Your task to perform on an android device: Open Wikipedia Image 0: 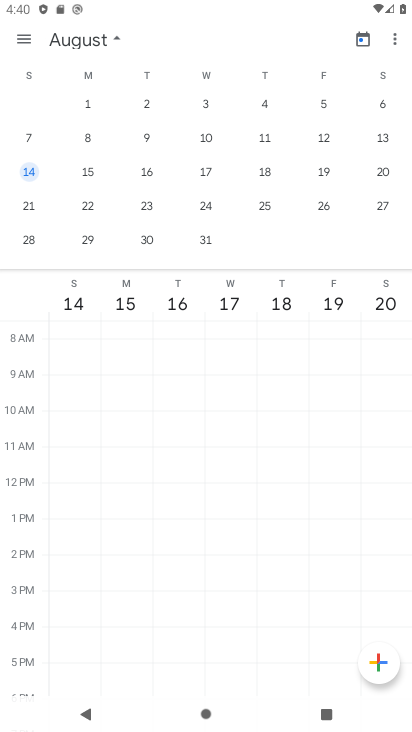
Step 0: press home button
Your task to perform on an android device: Open Wikipedia Image 1: 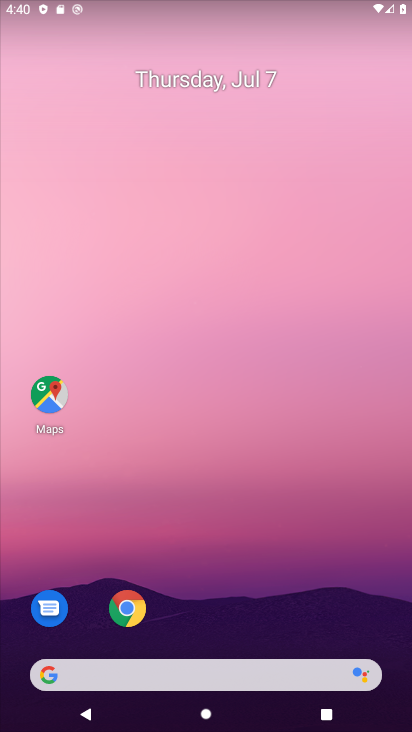
Step 1: click (132, 601)
Your task to perform on an android device: Open Wikipedia Image 2: 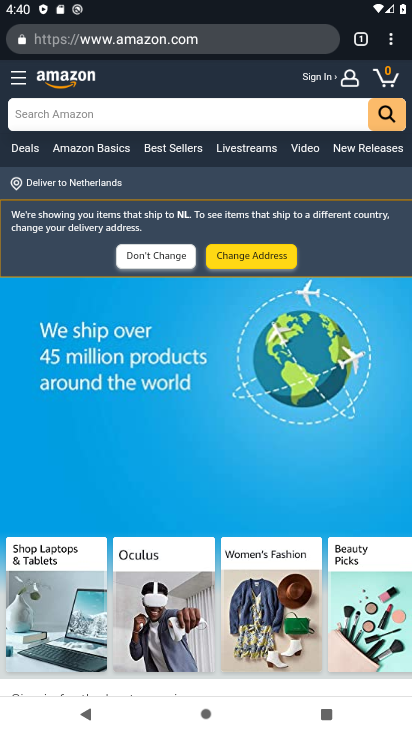
Step 2: click (361, 39)
Your task to perform on an android device: Open Wikipedia Image 3: 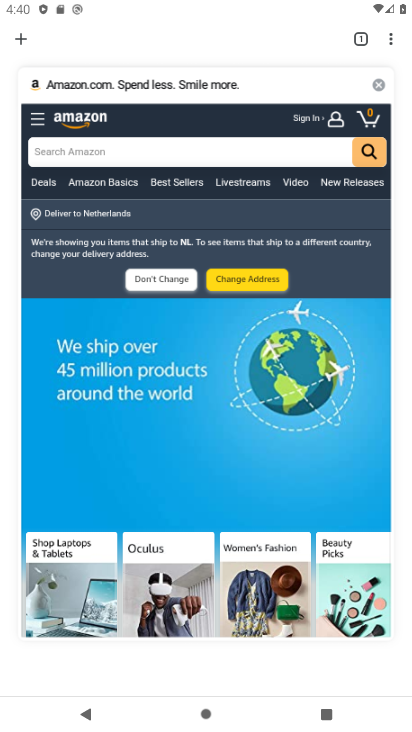
Step 3: click (18, 34)
Your task to perform on an android device: Open Wikipedia Image 4: 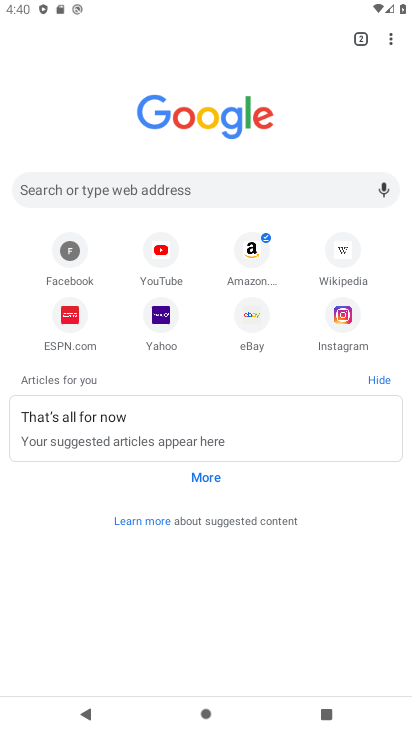
Step 4: click (338, 248)
Your task to perform on an android device: Open Wikipedia Image 5: 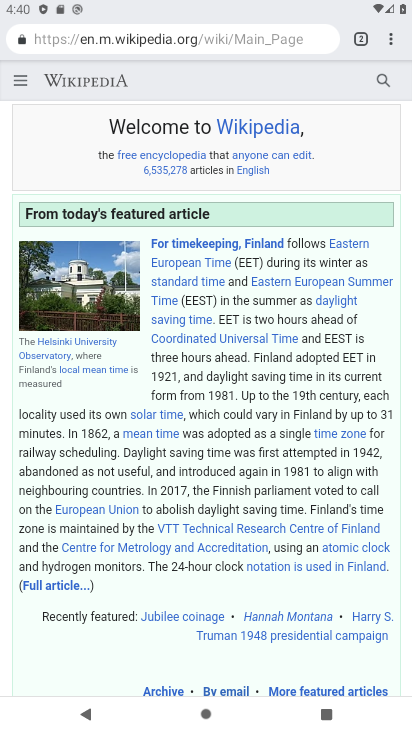
Step 5: task complete